Your task to perform on an android device: Open calendar and show me the second week of next month Image 0: 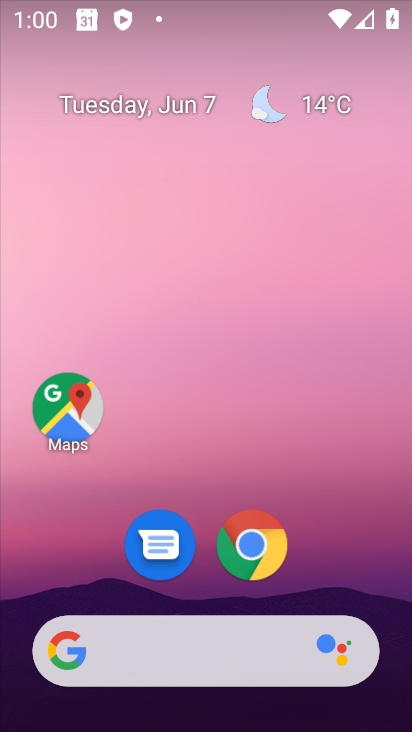
Step 0: press home button
Your task to perform on an android device: Open calendar and show me the second week of next month Image 1: 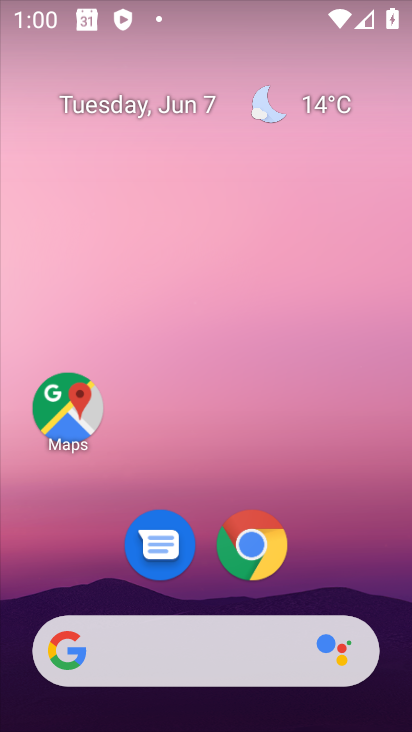
Step 1: drag from (306, 563) to (323, 139)
Your task to perform on an android device: Open calendar and show me the second week of next month Image 2: 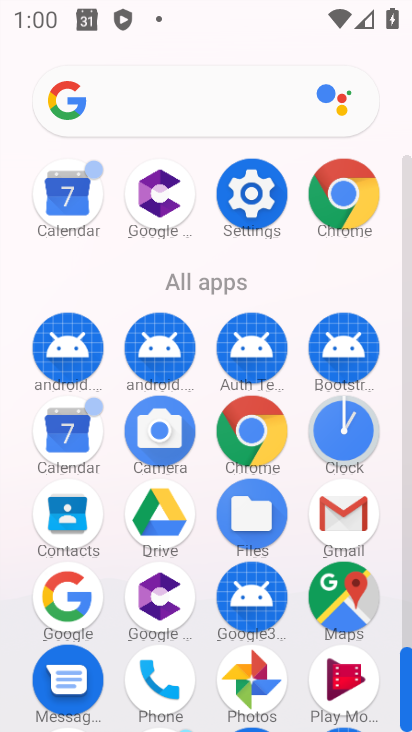
Step 2: click (80, 434)
Your task to perform on an android device: Open calendar and show me the second week of next month Image 3: 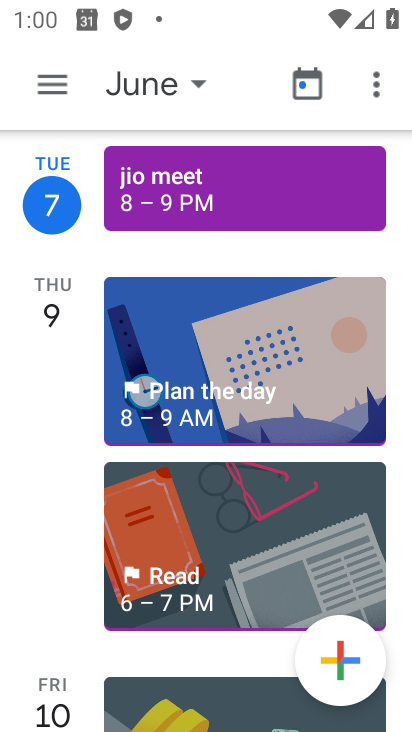
Step 3: click (159, 89)
Your task to perform on an android device: Open calendar and show me the second week of next month Image 4: 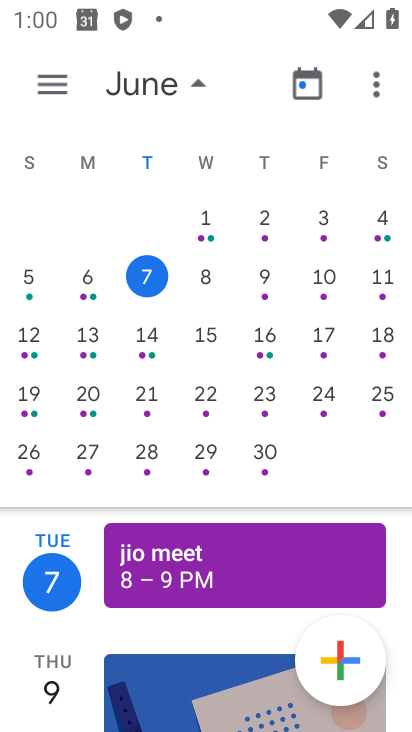
Step 4: drag from (379, 339) to (15, 342)
Your task to perform on an android device: Open calendar and show me the second week of next month Image 5: 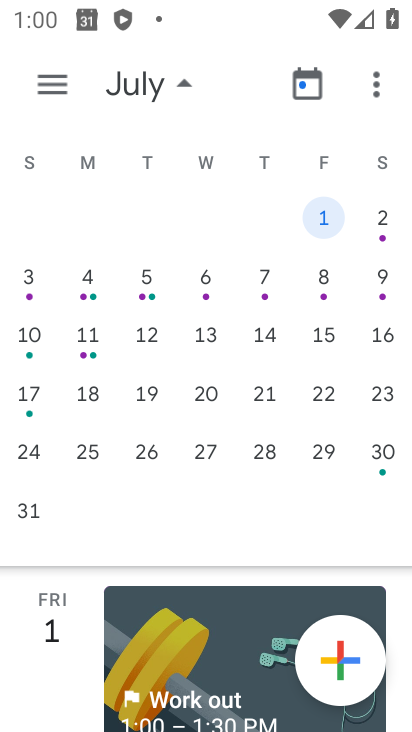
Step 5: click (25, 273)
Your task to perform on an android device: Open calendar and show me the second week of next month Image 6: 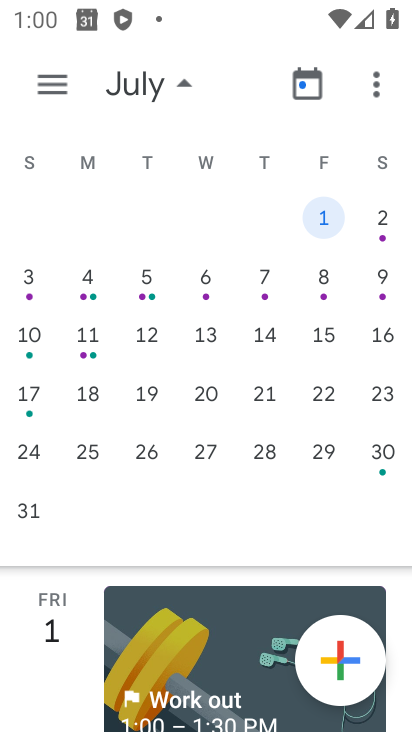
Step 6: click (36, 291)
Your task to perform on an android device: Open calendar and show me the second week of next month Image 7: 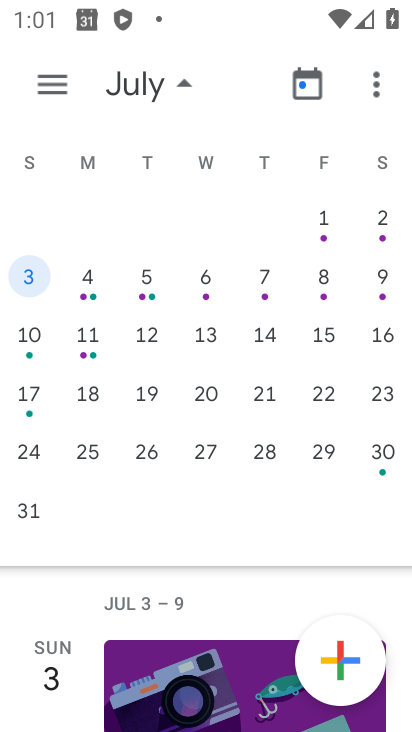
Step 7: task complete